Your task to perform on an android device: turn on javascript in the chrome app Image 0: 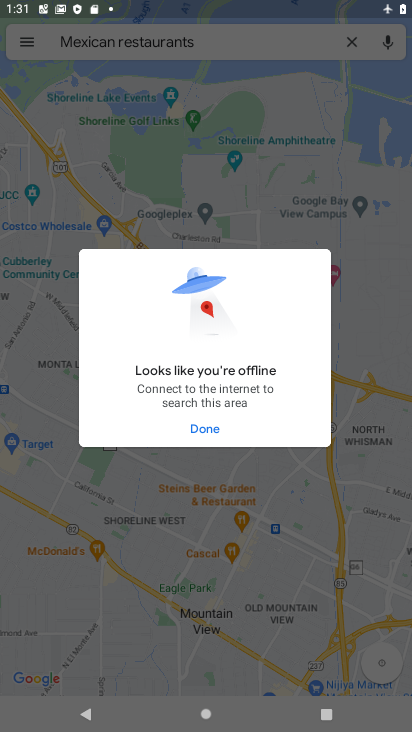
Step 0: press home button
Your task to perform on an android device: turn on javascript in the chrome app Image 1: 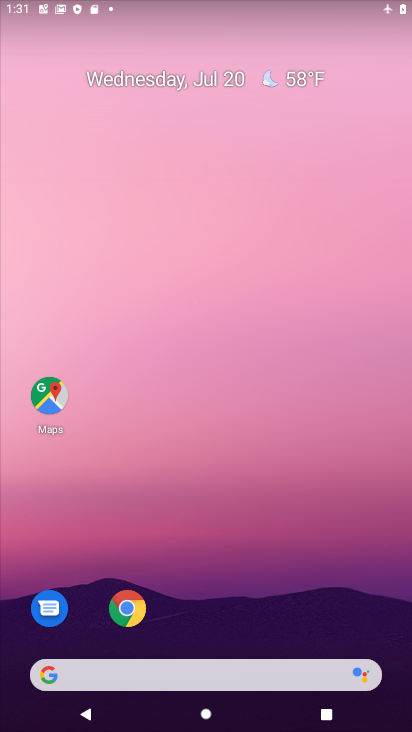
Step 1: drag from (240, 707) to (221, 95)
Your task to perform on an android device: turn on javascript in the chrome app Image 2: 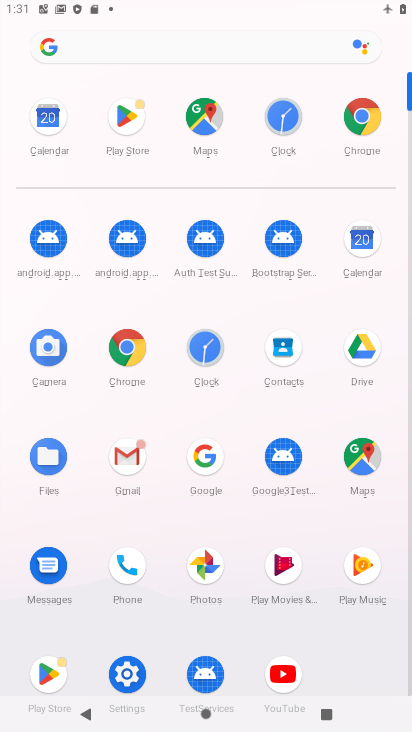
Step 2: click (125, 352)
Your task to perform on an android device: turn on javascript in the chrome app Image 3: 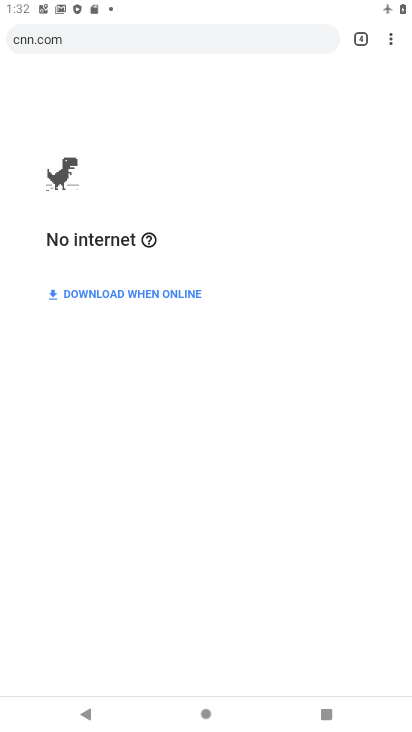
Step 3: click (392, 44)
Your task to perform on an android device: turn on javascript in the chrome app Image 4: 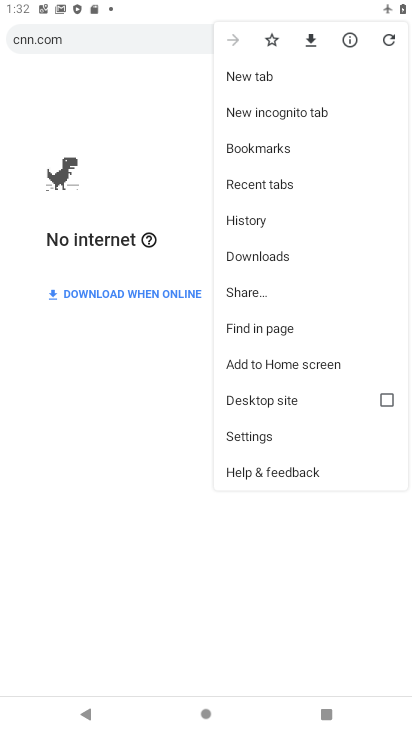
Step 4: click (255, 437)
Your task to perform on an android device: turn on javascript in the chrome app Image 5: 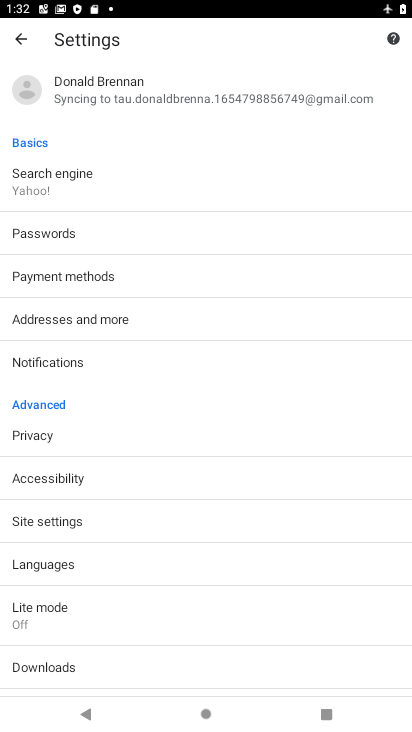
Step 5: click (47, 525)
Your task to perform on an android device: turn on javascript in the chrome app Image 6: 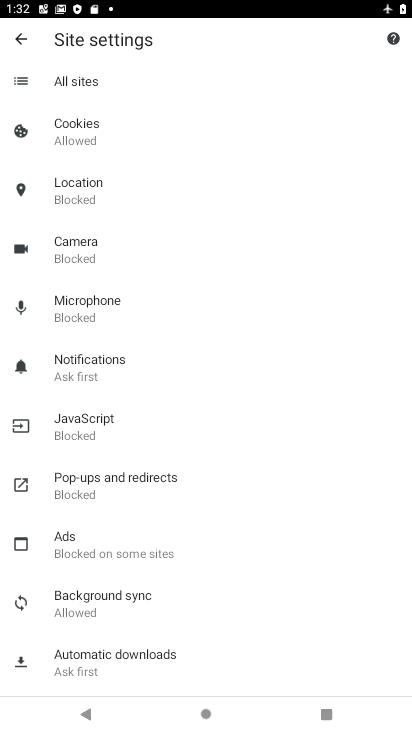
Step 6: click (88, 421)
Your task to perform on an android device: turn on javascript in the chrome app Image 7: 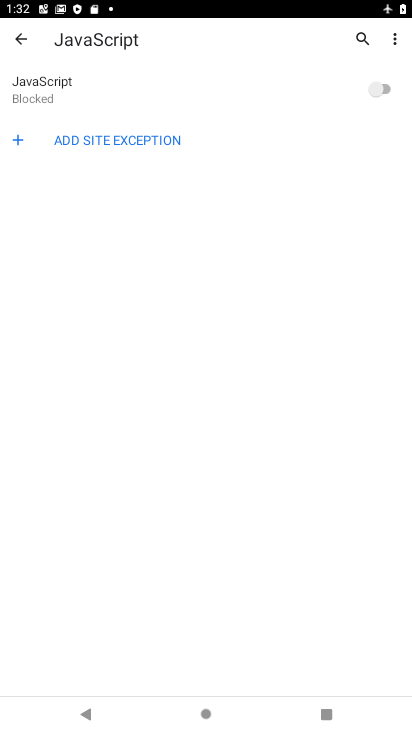
Step 7: click (381, 87)
Your task to perform on an android device: turn on javascript in the chrome app Image 8: 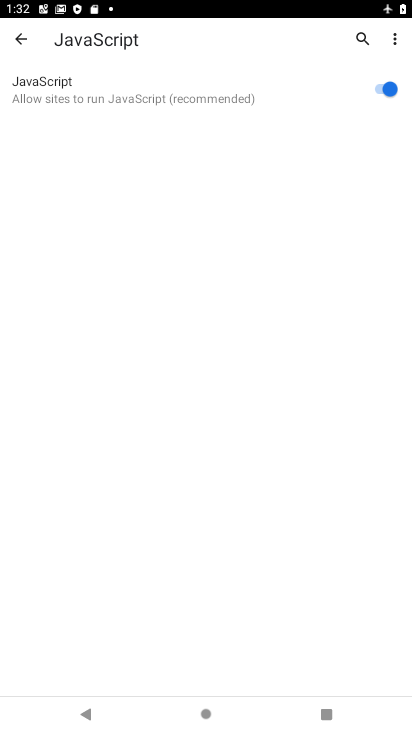
Step 8: task complete